Your task to perform on an android device: toggle improve location accuracy Image 0: 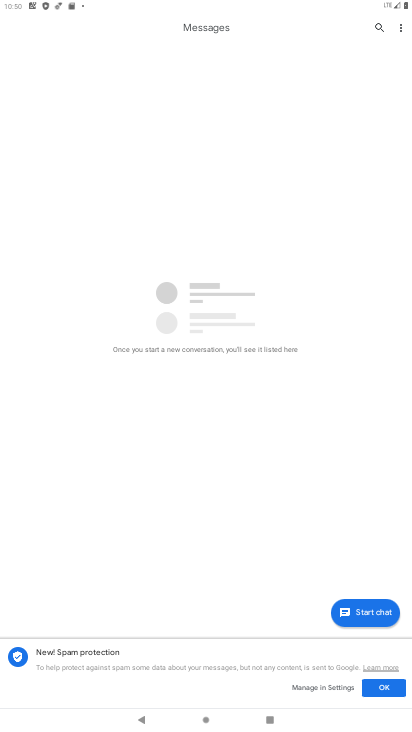
Step 0: press home button
Your task to perform on an android device: toggle improve location accuracy Image 1: 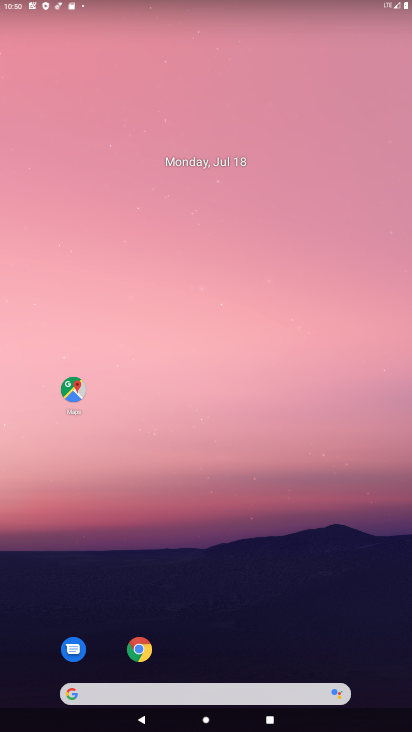
Step 1: drag from (171, 718) to (287, 59)
Your task to perform on an android device: toggle improve location accuracy Image 2: 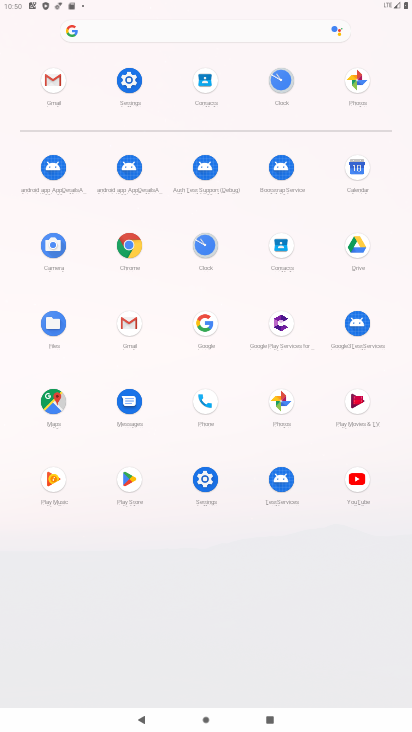
Step 2: click (127, 79)
Your task to perform on an android device: toggle improve location accuracy Image 3: 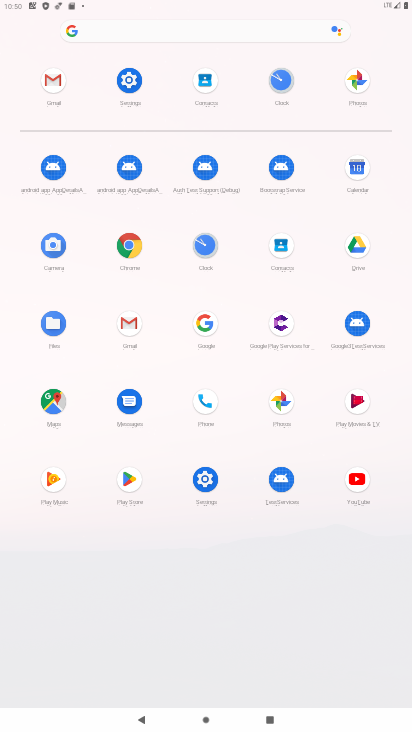
Step 3: click (127, 79)
Your task to perform on an android device: toggle improve location accuracy Image 4: 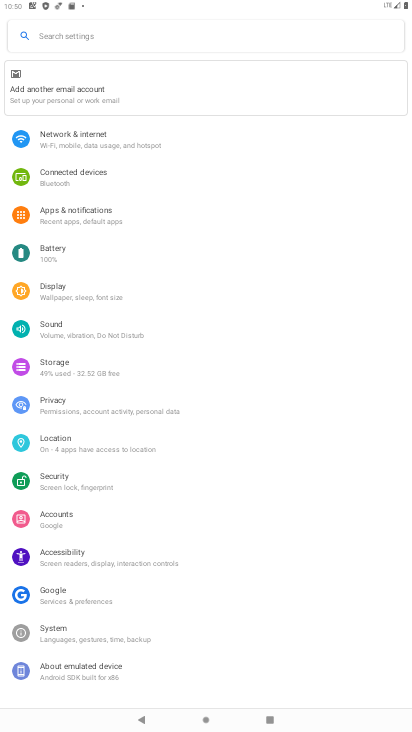
Step 4: click (80, 443)
Your task to perform on an android device: toggle improve location accuracy Image 5: 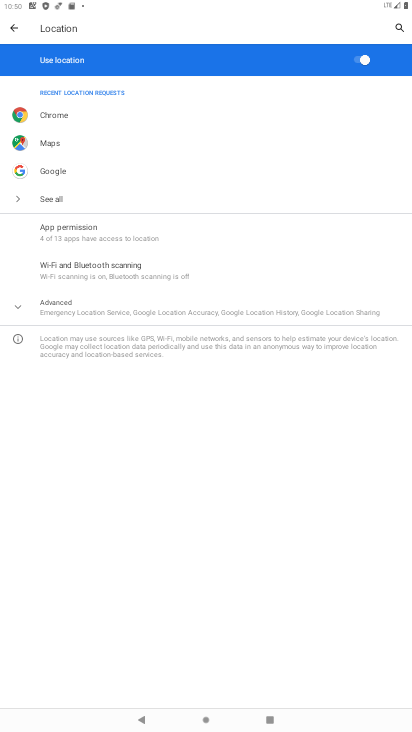
Step 5: click (87, 309)
Your task to perform on an android device: toggle improve location accuracy Image 6: 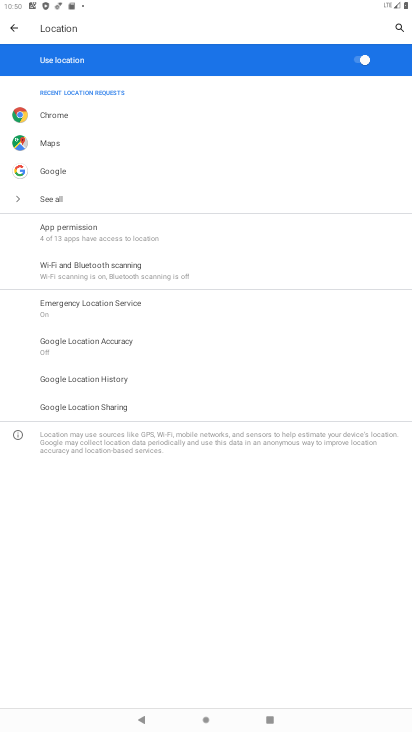
Step 6: click (123, 340)
Your task to perform on an android device: toggle improve location accuracy Image 7: 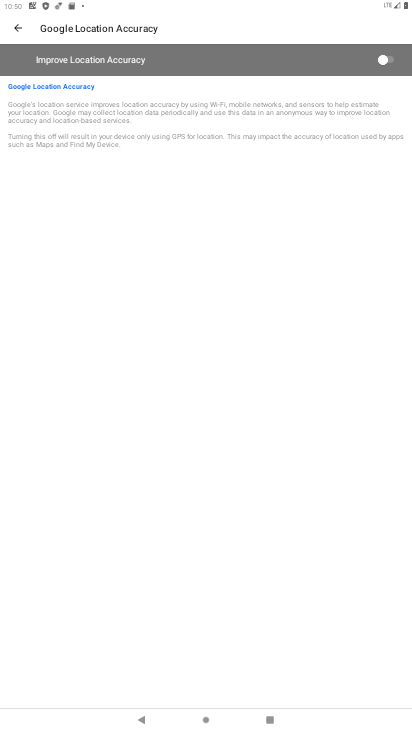
Step 7: click (383, 60)
Your task to perform on an android device: toggle improve location accuracy Image 8: 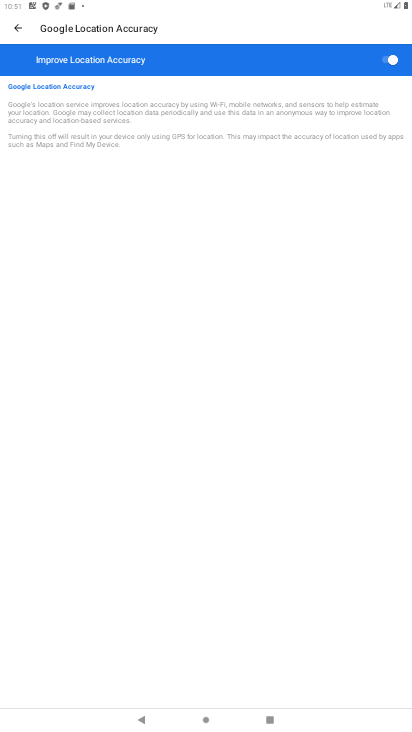
Step 8: task complete